Your task to perform on an android device: Turn on the flashlight Image 0: 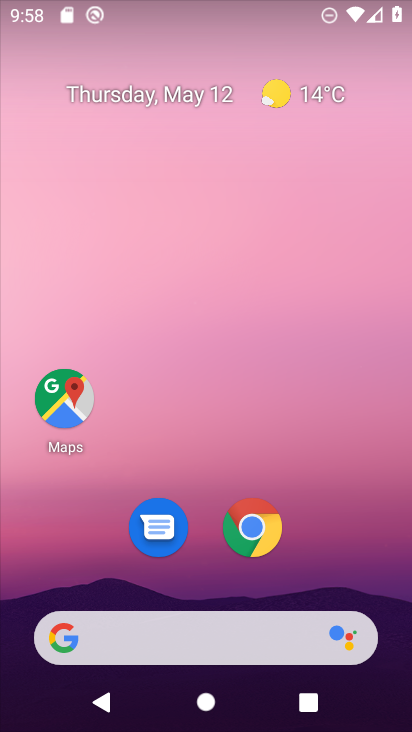
Step 0: drag from (336, 581) to (297, 74)
Your task to perform on an android device: Turn on the flashlight Image 1: 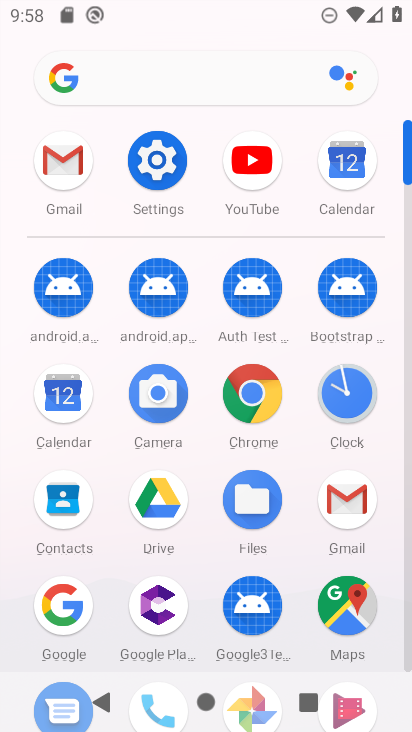
Step 1: click (167, 203)
Your task to perform on an android device: Turn on the flashlight Image 2: 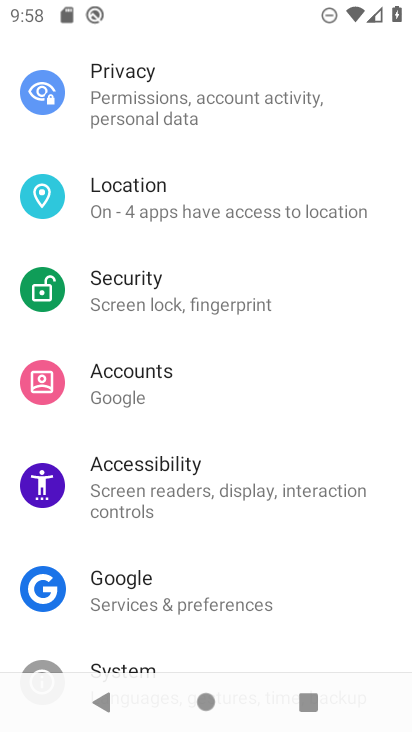
Step 2: click (235, 347)
Your task to perform on an android device: Turn on the flashlight Image 3: 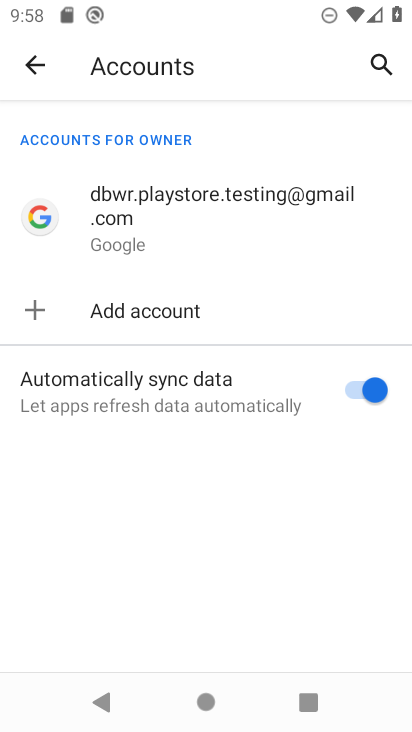
Step 3: task complete